Your task to perform on an android device: turn pop-ups on in chrome Image 0: 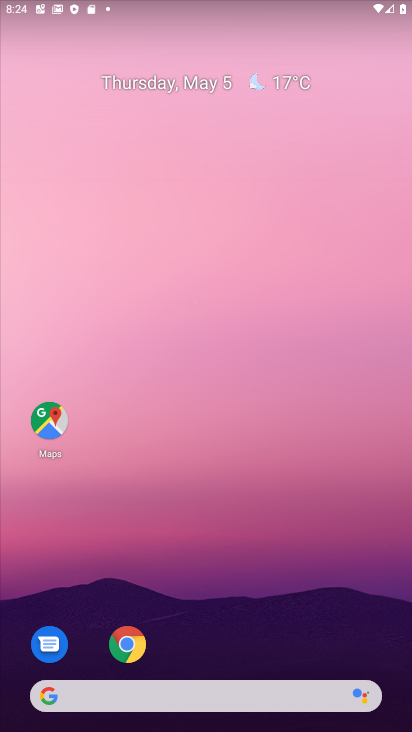
Step 0: click (136, 645)
Your task to perform on an android device: turn pop-ups on in chrome Image 1: 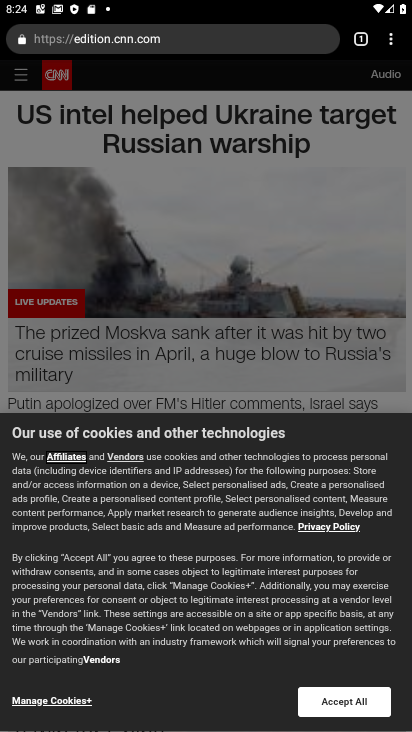
Step 1: click (392, 52)
Your task to perform on an android device: turn pop-ups on in chrome Image 2: 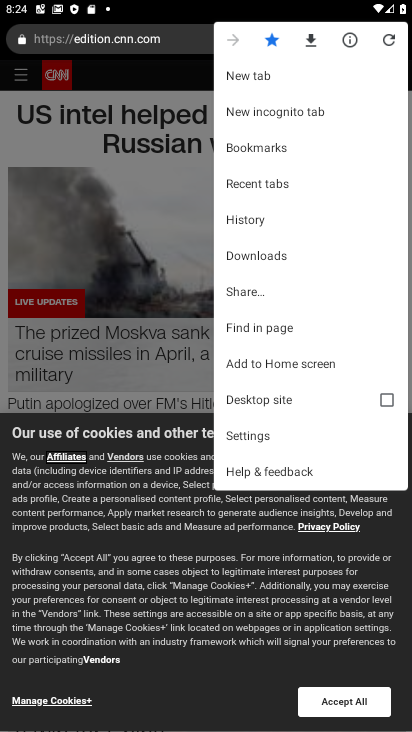
Step 2: click (264, 434)
Your task to perform on an android device: turn pop-ups on in chrome Image 3: 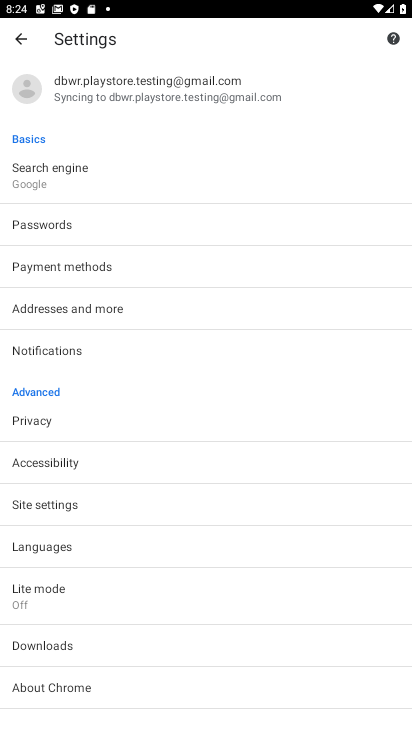
Step 3: drag from (241, 669) to (272, 416)
Your task to perform on an android device: turn pop-ups on in chrome Image 4: 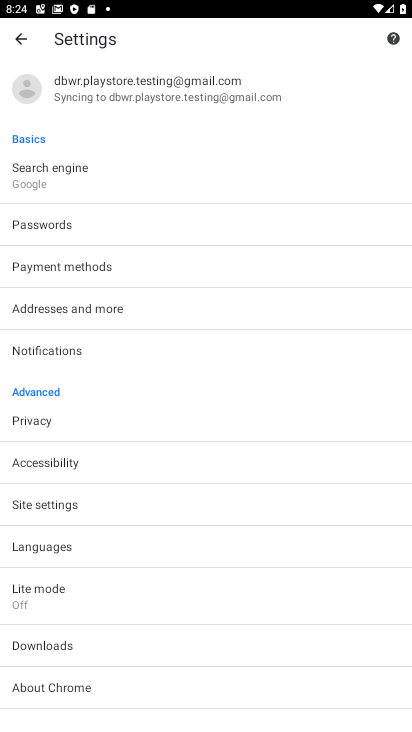
Step 4: click (272, 503)
Your task to perform on an android device: turn pop-ups on in chrome Image 5: 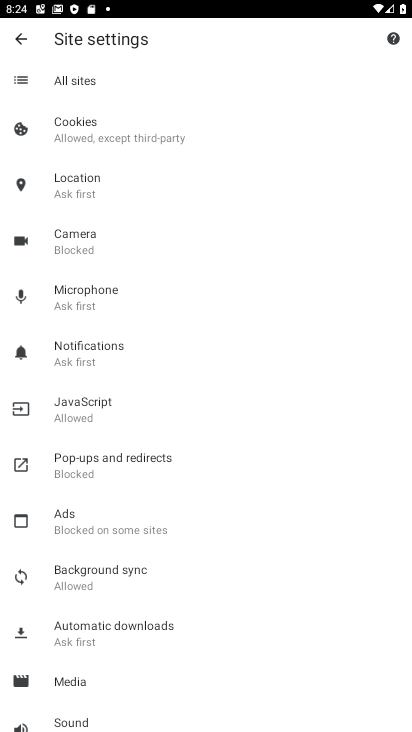
Step 5: click (183, 452)
Your task to perform on an android device: turn pop-ups on in chrome Image 6: 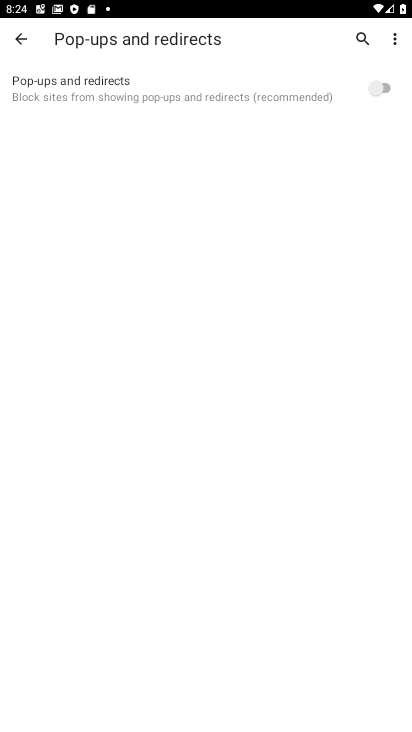
Step 6: click (387, 86)
Your task to perform on an android device: turn pop-ups on in chrome Image 7: 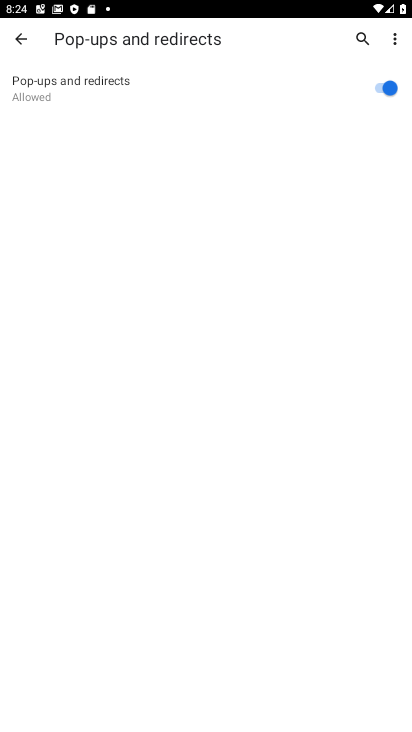
Step 7: task complete